Your task to perform on an android device: Open notification settings Image 0: 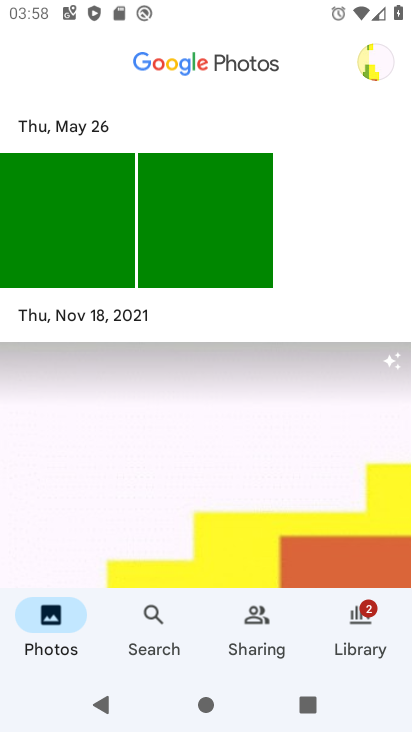
Step 0: press home button
Your task to perform on an android device: Open notification settings Image 1: 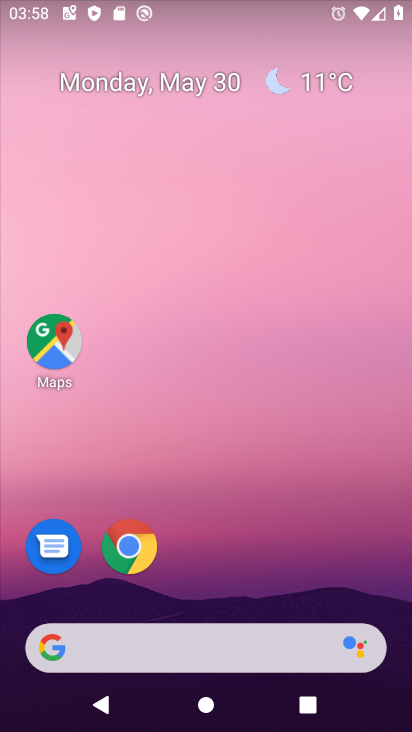
Step 1: drag from (211, 599) to (204, 77)
Your task to perform on an android device: Open notification settings Image 2: 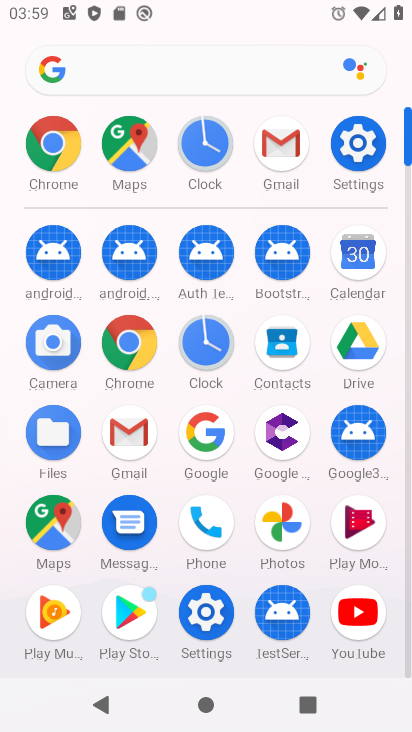
Step 2: click (359, 142)
Your task to perform on an android device: Open notification settings Image 3: 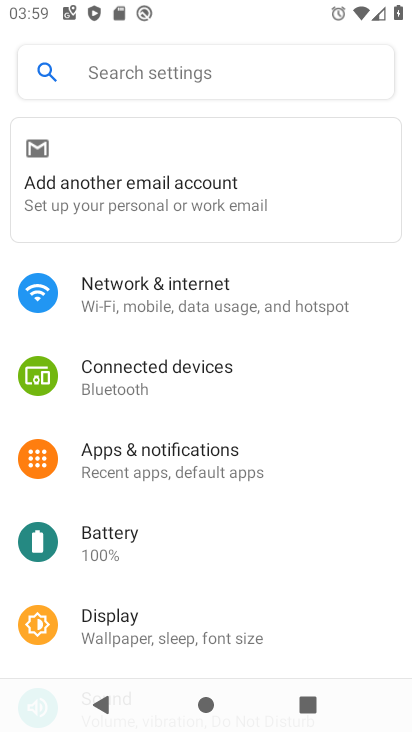
Step 3: click (219, 460)
Your task to perform on an android device: Open notification settings Image 4: 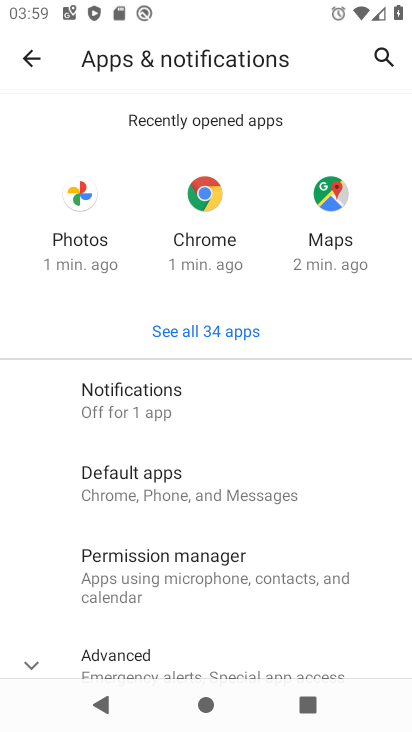
Step 4: click (193, 397)
Your task to perform on an android device: Open notification settings Image 5: 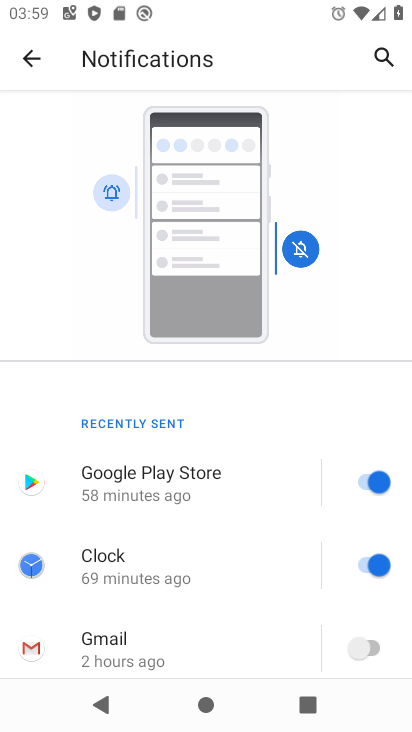
Step 5: drag from (219, 644) to (212, 106)
Your task to perform on an android device: Open notification settings Image 6: 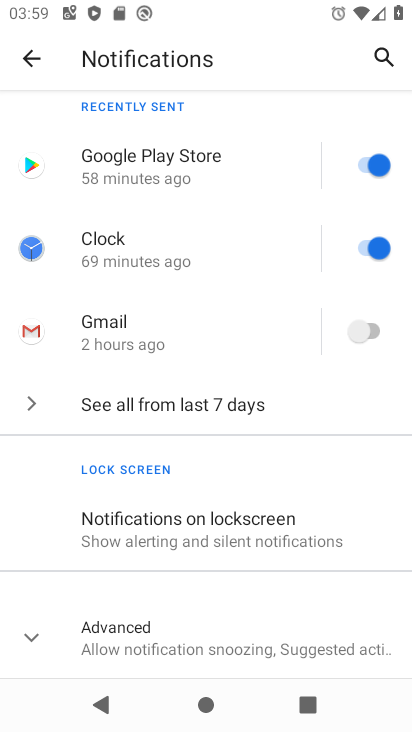
Step 6: click (28, 632)
Your task to perform on an android device: Open notification settings Image 7: 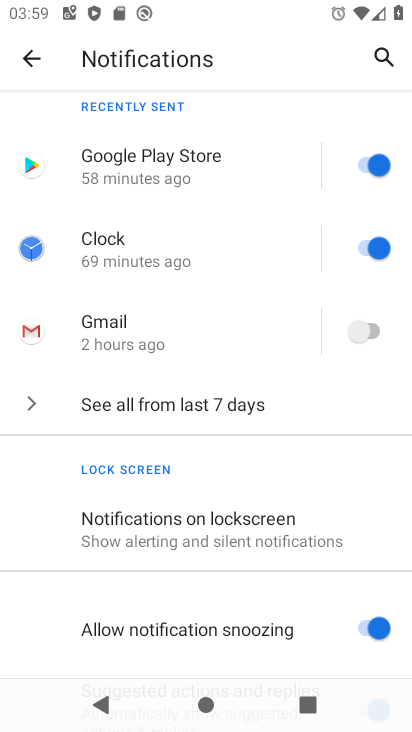
Step 7: task complete